Your task to perform on an android device: open a new tab in the chrome app Image 0: 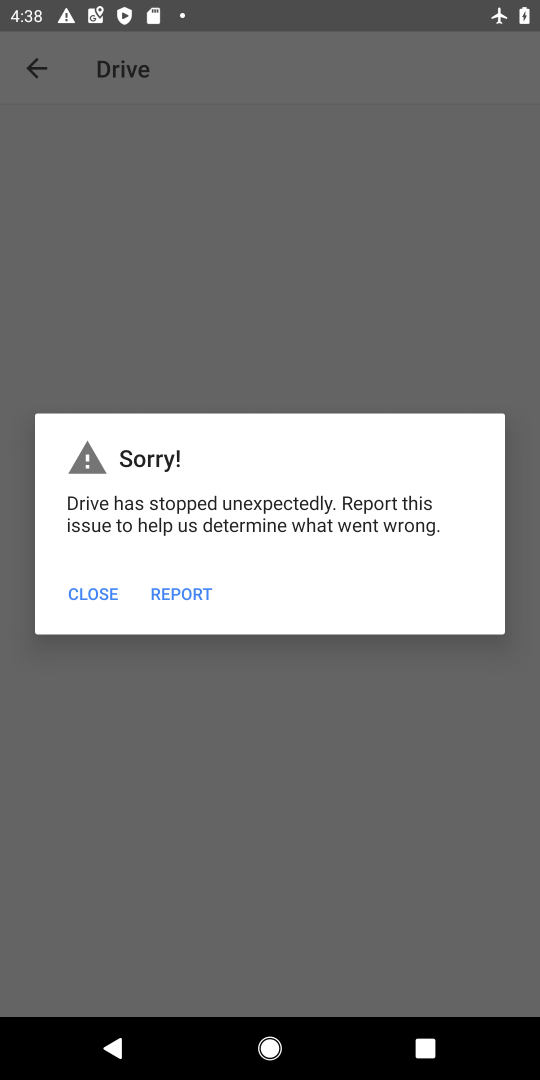
Step 0: press home button
Your task to perform on an android device: open a new tab in the chrome app Image 1: 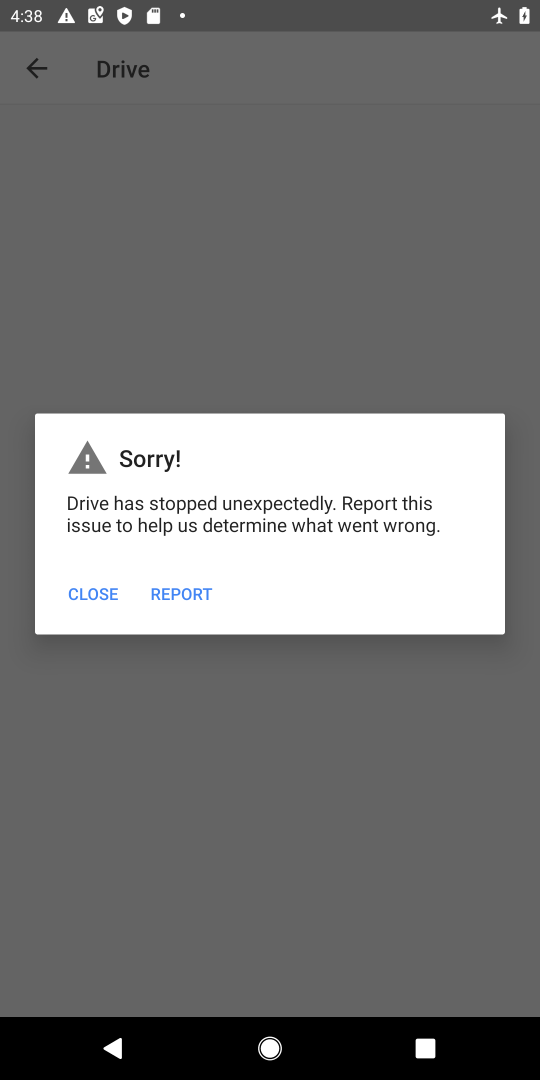
Step 1: press home button
Your task to perform on an android device: open a new tab in the chrome app Image 2: 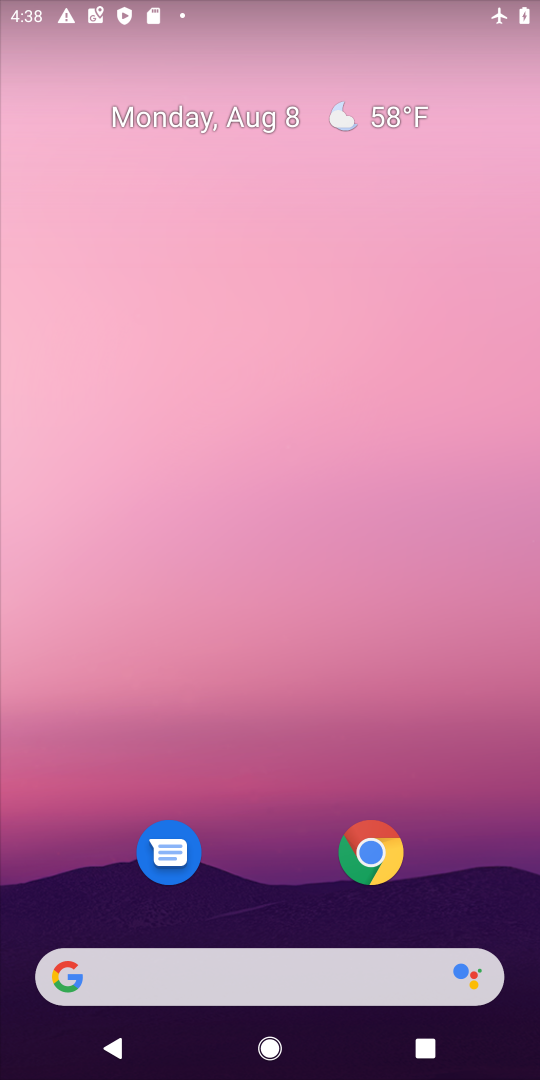
Step 2: drag from (275, 700) to (396, 61)
Your task to perform on an android device: open a new tab in the chrome app Image 3: 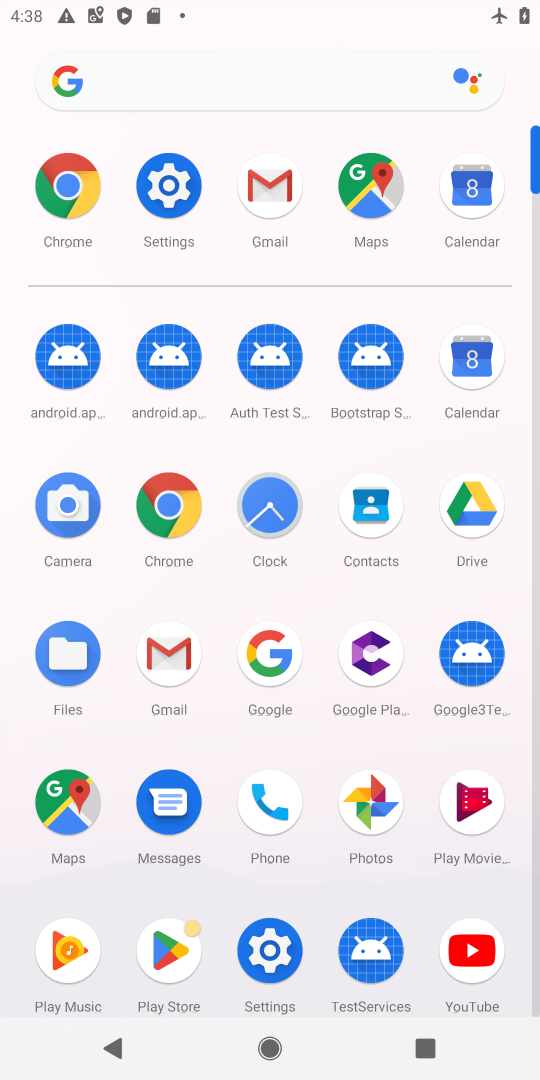
Step 3: click (165, 504)
Your task to perform on an android device: open a new tab in the chrome app Image 4: 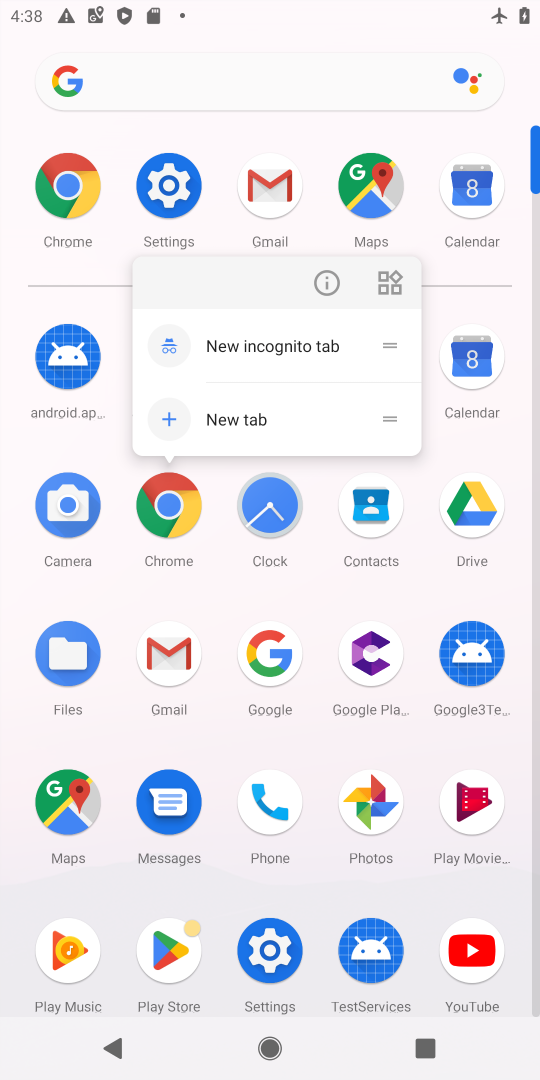
Step 4: click (165, 507)
Your task to perform on an android device: open a new tab in the chrome app Image 5: 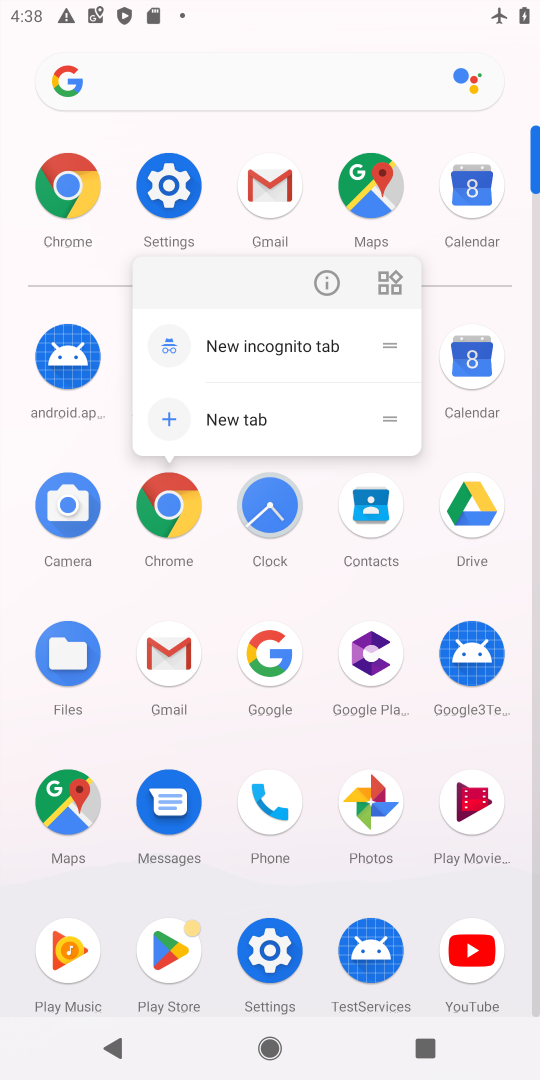
Step 5: click (177, 510)
Your task to perform on an android device: open a new tab in the chrome app Image 6: 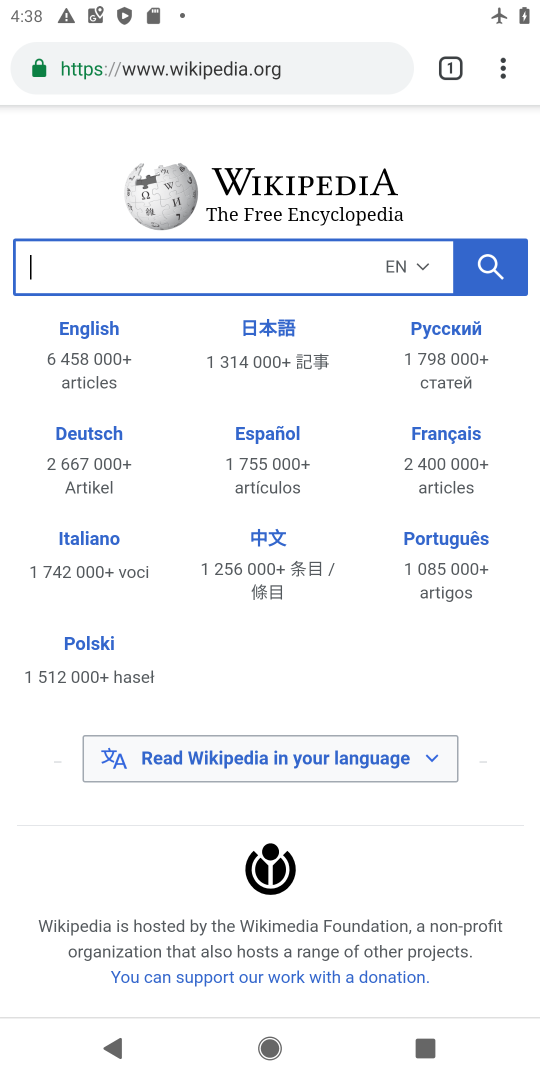
Step 6: task complete